Your task to perform on an android device: Go to CNN.com Image 0: 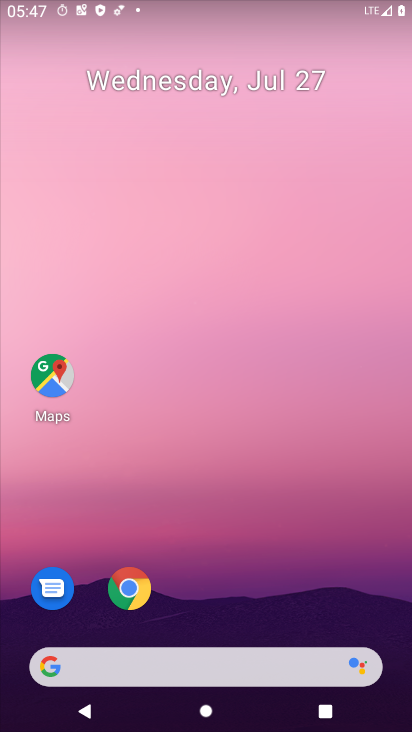
Step 0: drag from (330, 665) to (379, 110)
Your task to perform on an android device: Go to CNN.com Image 1: 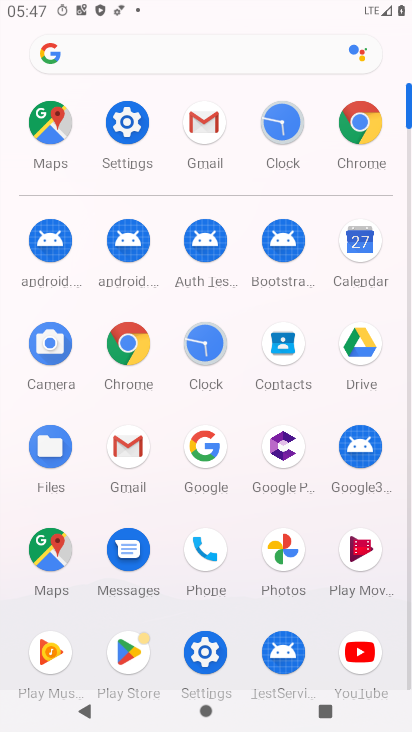
Step 1: click (109, 330)
Your task to perform on an android device: Go to CNN.com Image 2: 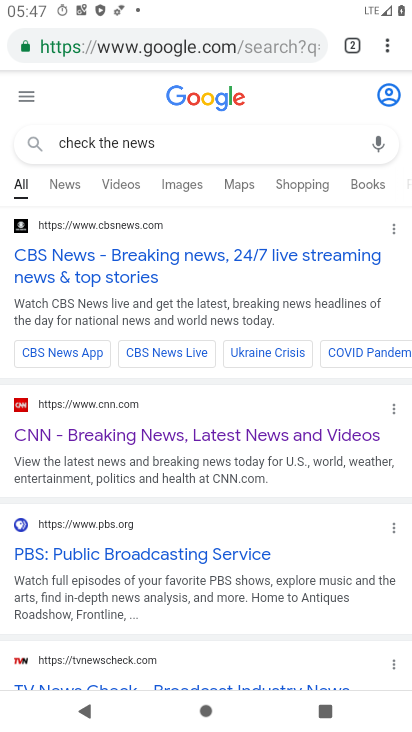
Step 2: click (287, 51)
Your task to perform on an android device: Go to CNN.com Image 3: 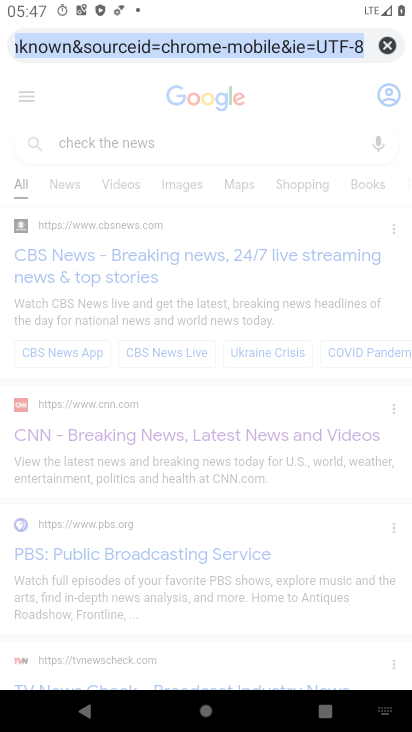
Step 3: type "cnn.com"
Your task to perform on an android device: Go to CNN.com Image 4: 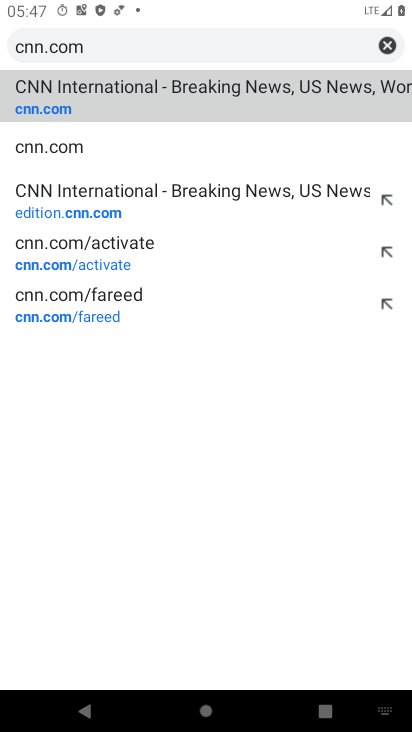
Step 4: click (222, 96)
Your task to perform on an android device: Go to CNN.com Image 5: 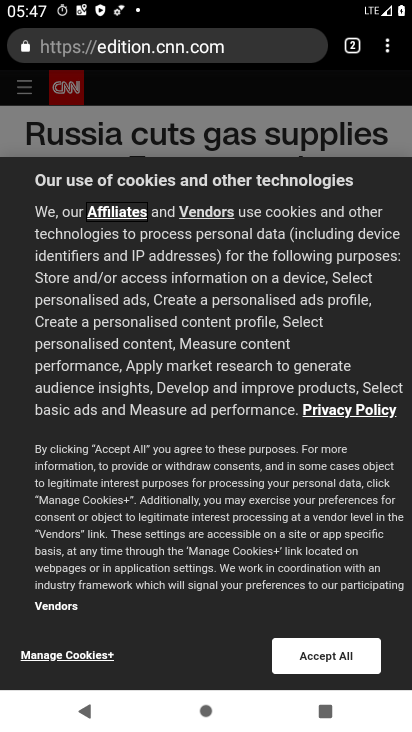
Step 5: task complete